Your task to perform on an android device: make emails show in primary in the gmail app Image 0: 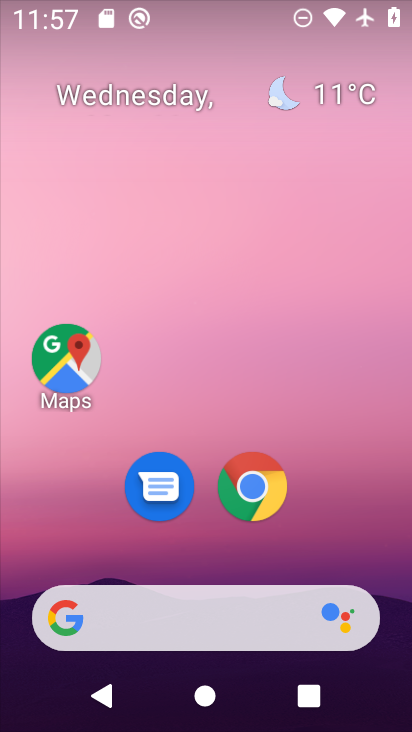
Step 0: drag from (320, 512) to (257, 40)
Your task to perform on an android device: make emails show in primary in the gmail app Image 1: 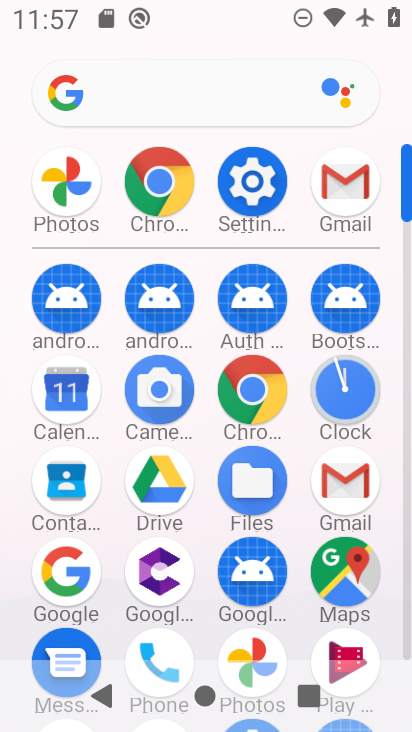
Step 1: click (342, 181)
Your task to perform on an android device: make emails show in primary in the gmail app Image 2: 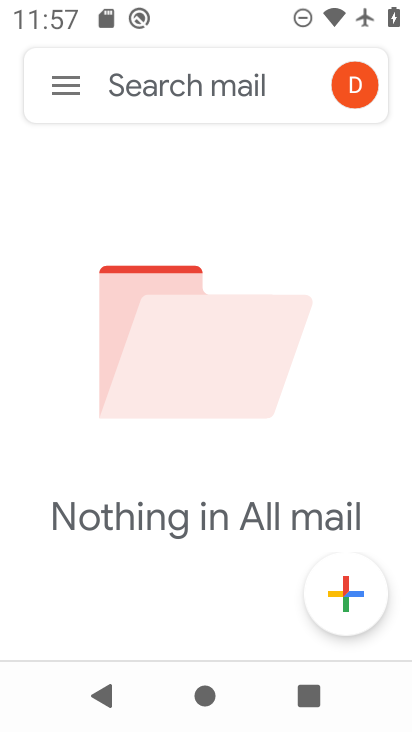
Step 2: click (60, 83)
Your task to perform on an android device: make emails show in primary in the gmail app Image 3: 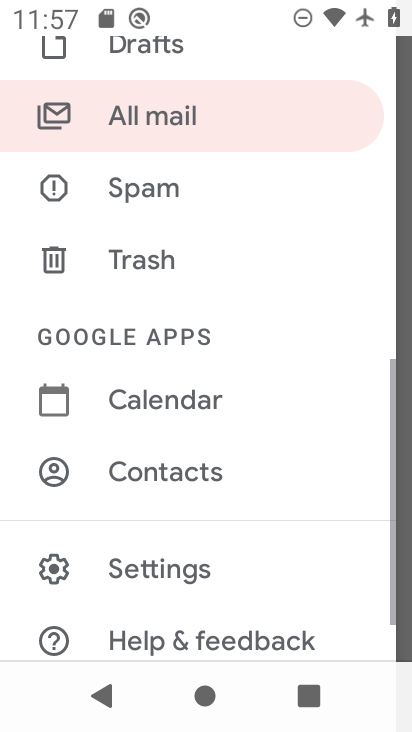
Step 3: drag from (167, 570) to (203, 193)
Your task to perform on an android device: make emails show in primary in the gmail app Image 4: 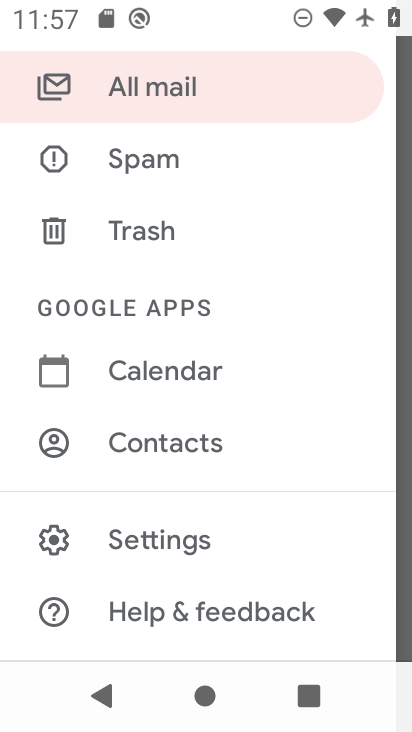
Step 4: click (165, 529)
Your task to perform on an android device: make emails show in primary in the gmail app Image 5: 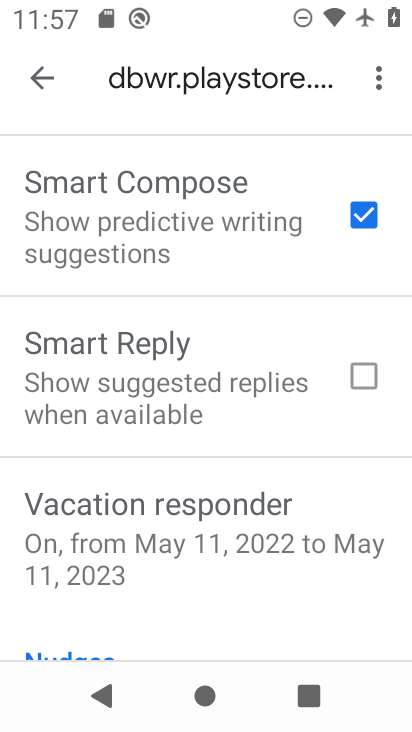
Step 5: drag from (186, 524) to (186, 188)
Your task to perform on an android device: make emails show in primary in the gmail app Image 6: 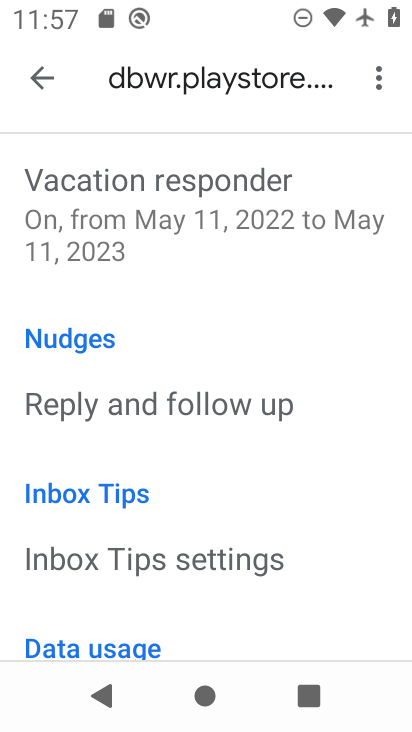
Step 6: drag from (200, 544) to (205, 161)
Your task to perform on an android device: make emails show in primary in the gmail app Image 7: 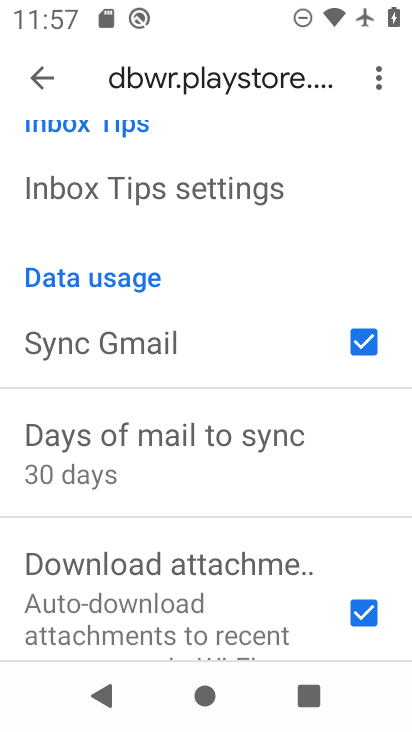
Step 7: drag from (185, 555) to (218, 152)
Your task to perform on an android device: make emails show in primary in the gmail app Image 8: 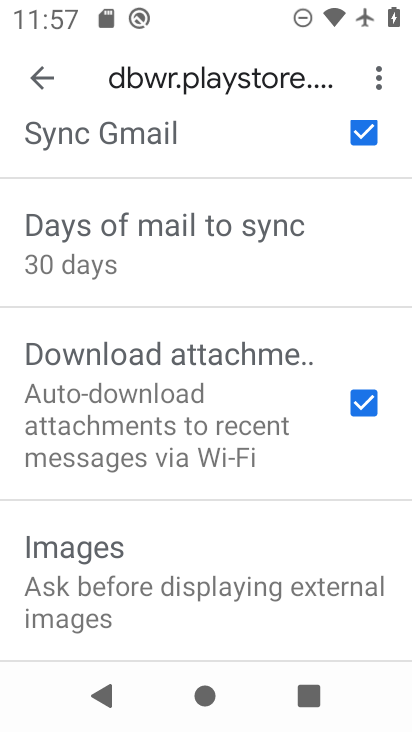
Step 8: drag from (183, 536) to (207, 203)
Your task to perform on an android device: make emails show in primary in the gmail app Image 9: 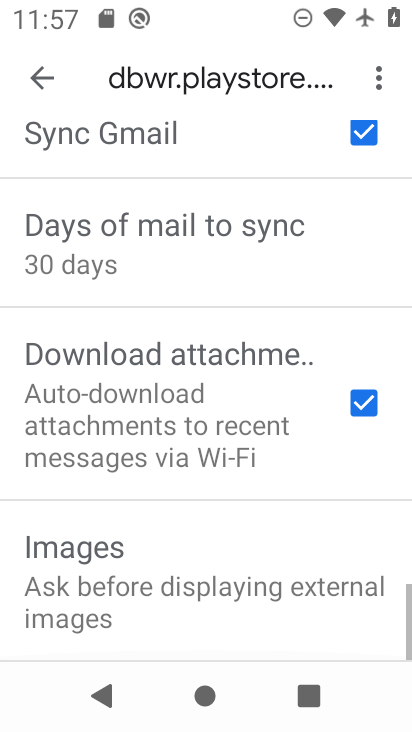
Step 9: drag from (212, 169) to (220, 547)
Your task to perform on an android device: make emails show in primary in the gmail app Image 10: 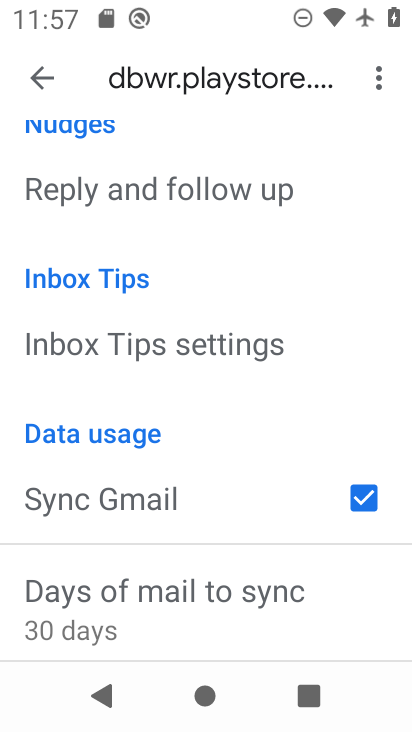
Step 10: drag from (222, 224) to (230, 585)
Your task to perform on an android device: make emails show in primary in the gmail app Image 11: 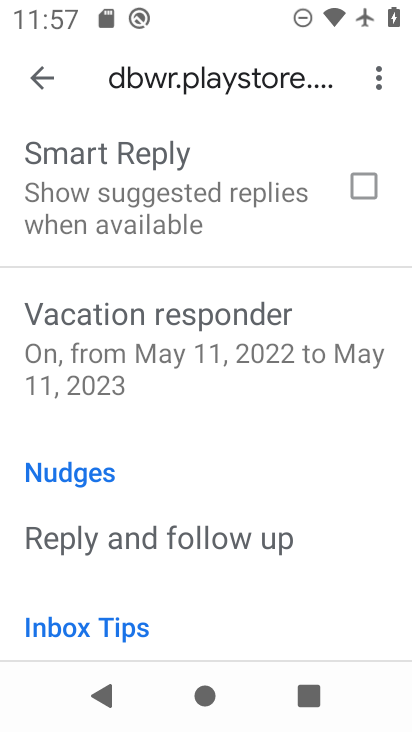
Step 11: drag from (244, 198) to (212, 601)
Your task to perform on an android device: make emails show in primary in the gmail app Image 12: 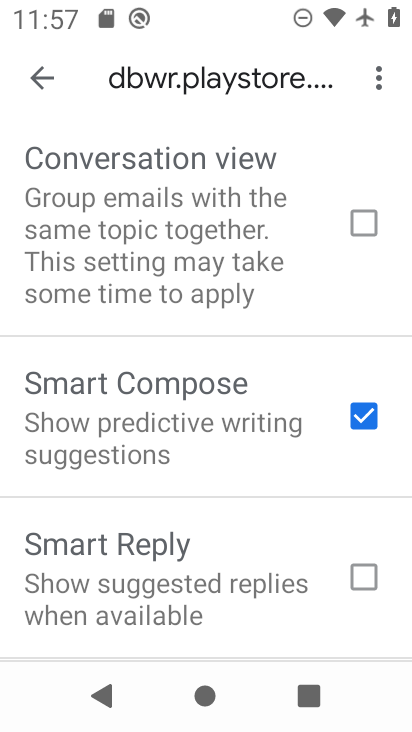
Step 12: drag from (206, 190) to (216, 601)
Your task to perform on an android device: make emails show in primary in the gmail app Image 13: 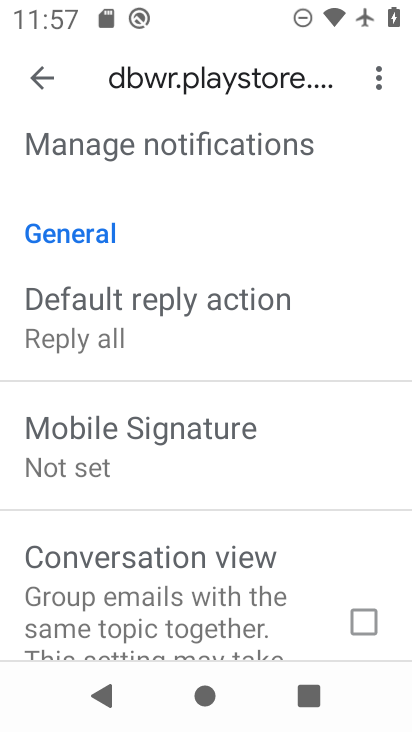
Step 13: drag from (255, 243) to (237, 586)
Your task to perform on an android device: make emails show in primary in the gmail app Image 14: 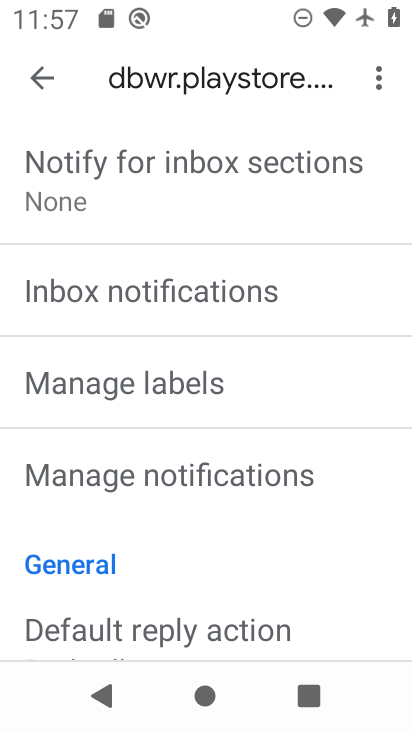
Step 14: drag from (249, 335) to (249, 633)
Your task to perform on an android device: make emails show in primary in the gmail app Image 15: 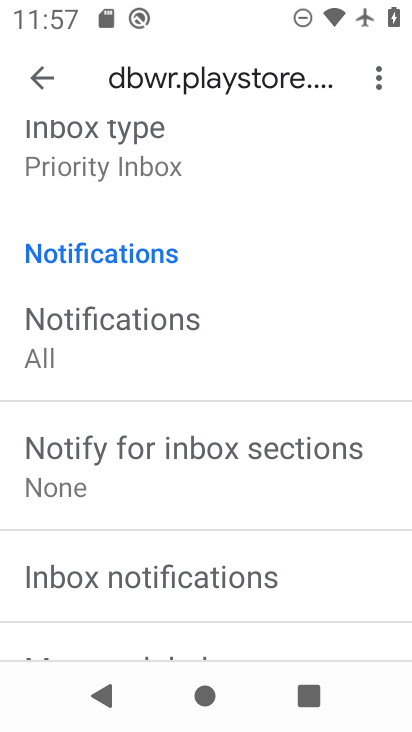
Step 15: drag from (242, 141) to (251, 513)
Your task to perform on an android device: make emails show in primary in the gmail app Image 16: 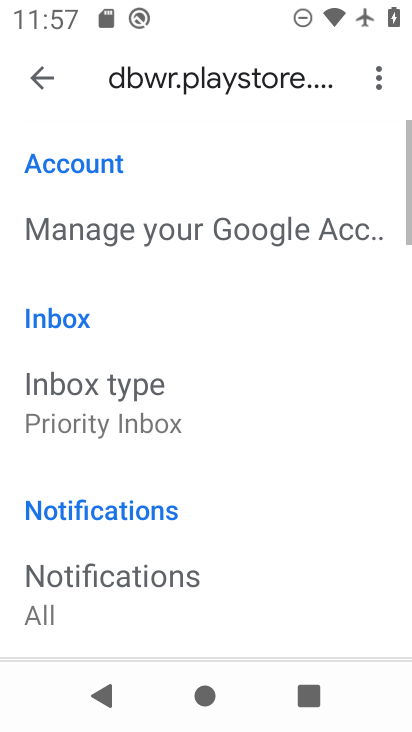
Step 16: click (163, 394)
Your task to perform on an android device: make emails show in primary in the gmail app Image 17: 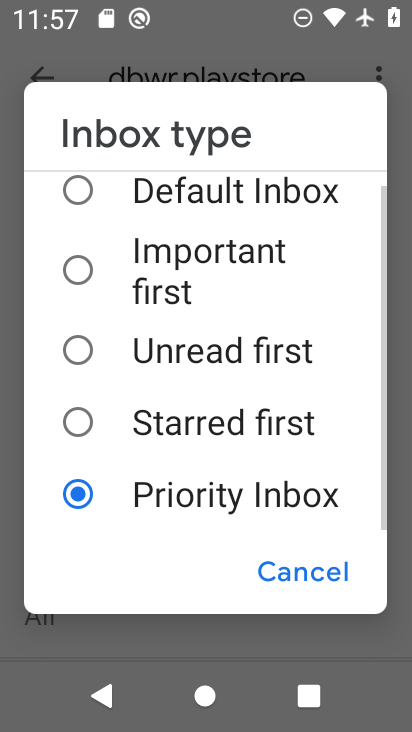
Step 17: drag from (225, 213) to (239, 500)
Your task to perform on an android device: make emails show in primary in the gmail app Image 18: 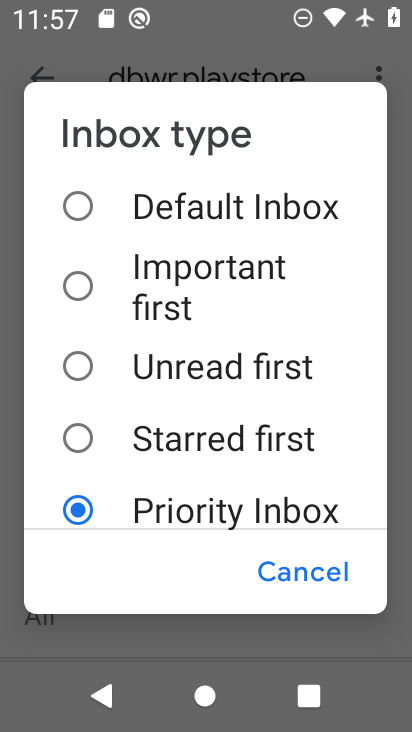
Step 18: click (197, 213)
Your task to perform on an android device: make emails show in primary in the gmail app Image 19: 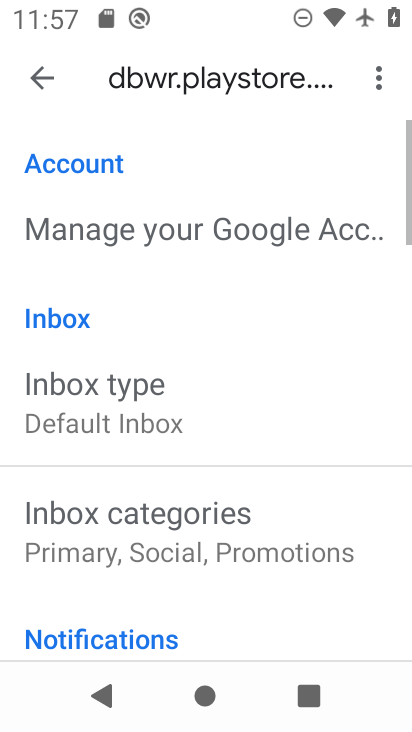
Step 19: click (219, 509)
Your task to perform on an android device: make emails show in primary in the gmail app Image 20: 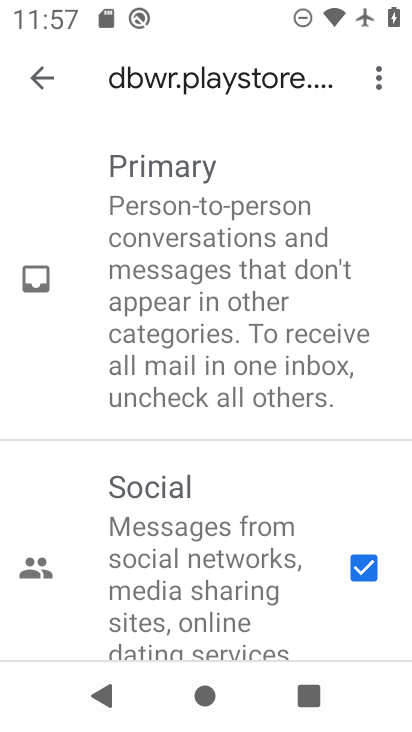
Step 20: click (349, 568)
Your task to perform on an android device: make emails show in primary in the gmail app Image 21: 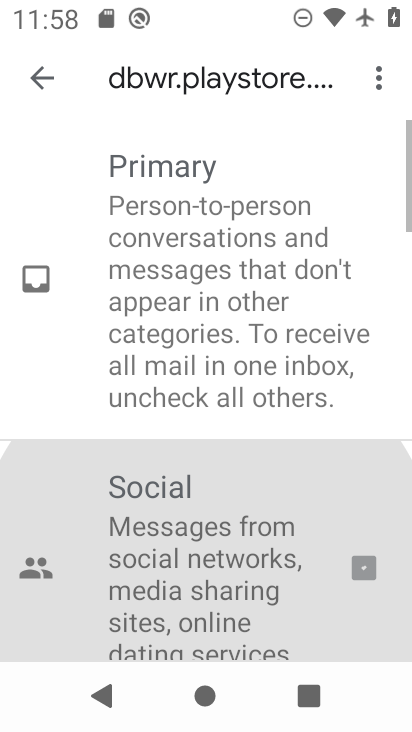
Step 21: drag from (244, 586) to (216, 243)
Your task to perform on an android device: make emails show in primary in the gmail app Image 22: 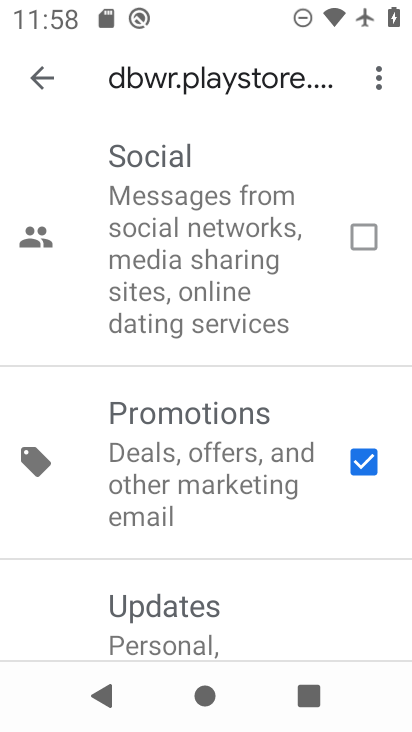
Step 22: click (355, 465)
Your task to perform on an android device: make emails show in primary in the gmail app Image 23: 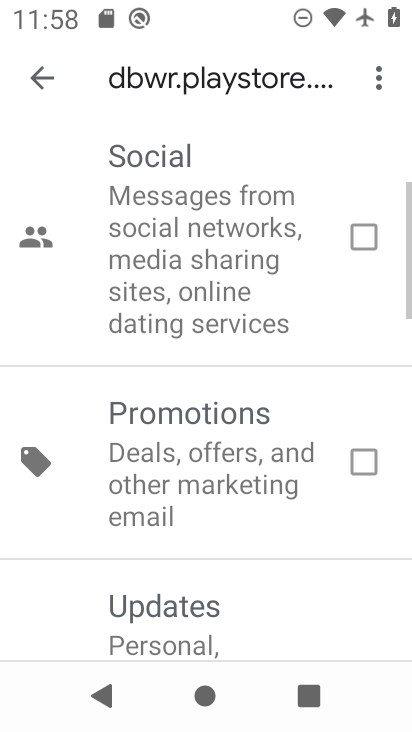
Step 23: click (51, 67)
Your task to perform on an android device: make emails show in primary in the gmail app Image 24: 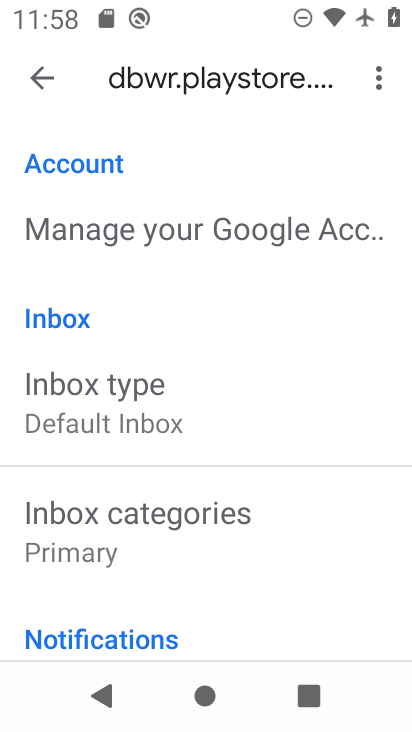
Step 24: task complete